Your task to perform on an android device: turn on airplane mode Image 0: 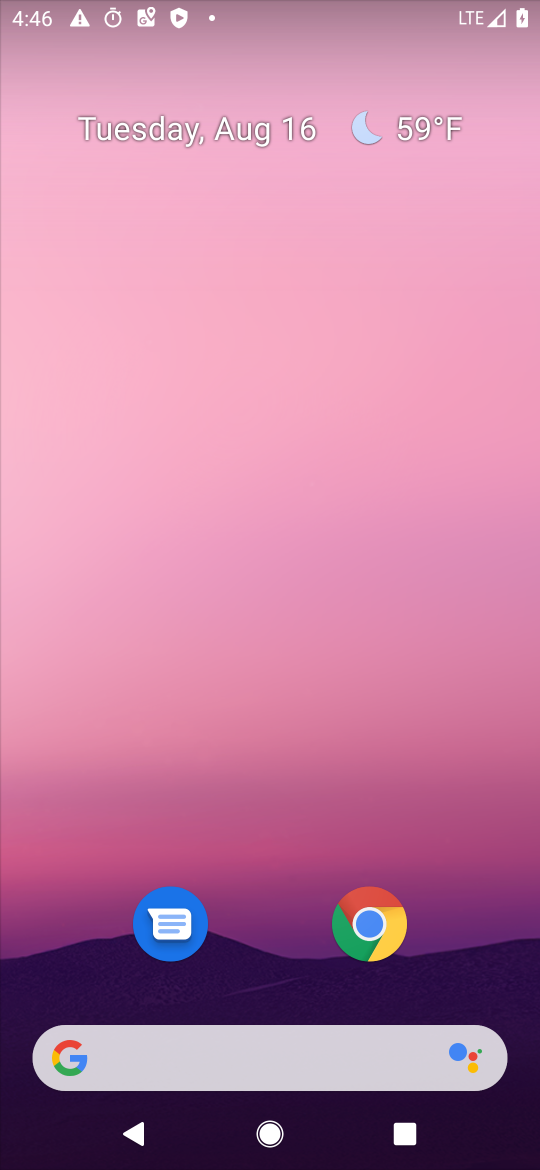
Step 0: drag from (294, 9) to (406, 758)
Your task to perform on an android device: turn on airplane mode Image 1: 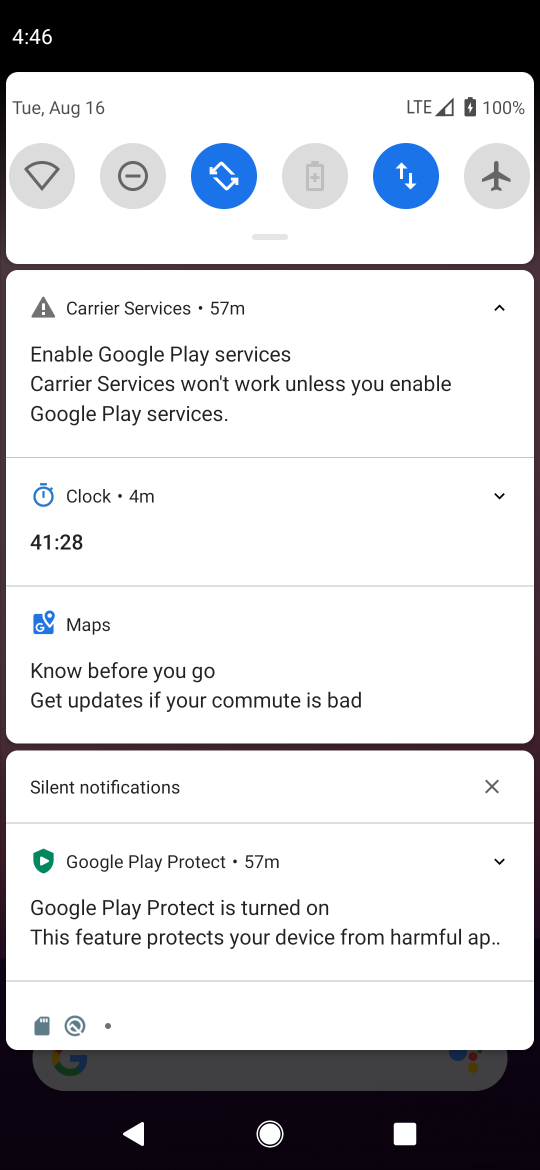
Step 1: click (496, 152)
Your task to perform on an android device: turn on airplane mode Image 2: 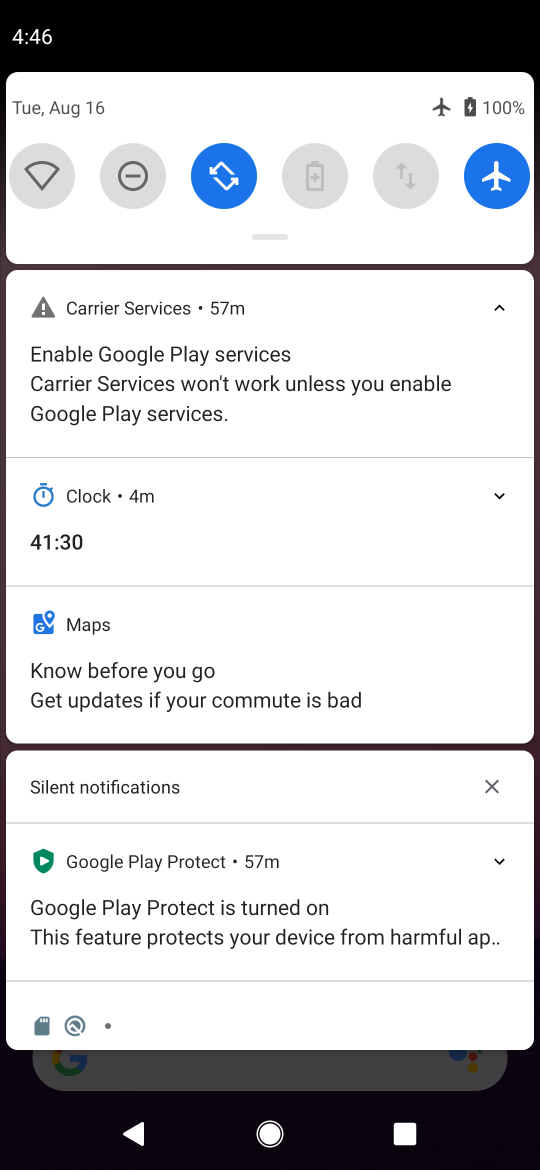
Step 2: task complete